Your task to perform on an android device: change the clock display to show seconds Image 0: 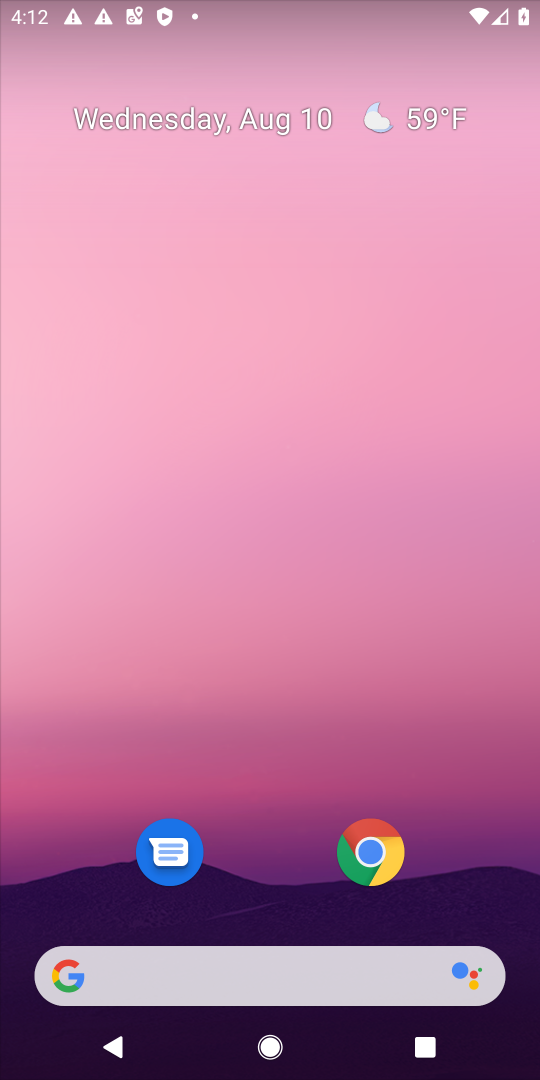
Step 0: drag from (289, 861) to (225, 145)
Your task to perform on an android device: change the clock display to show seconds Image 1: 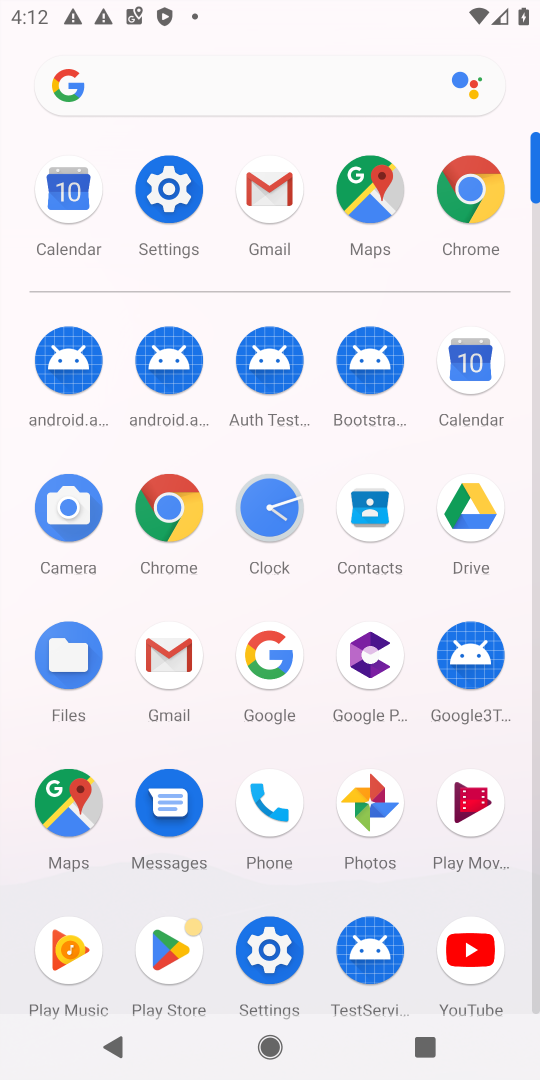
Step 1: click (252, 493)
Your task to perform on an android device: change the clock display to show seconds Image 2: 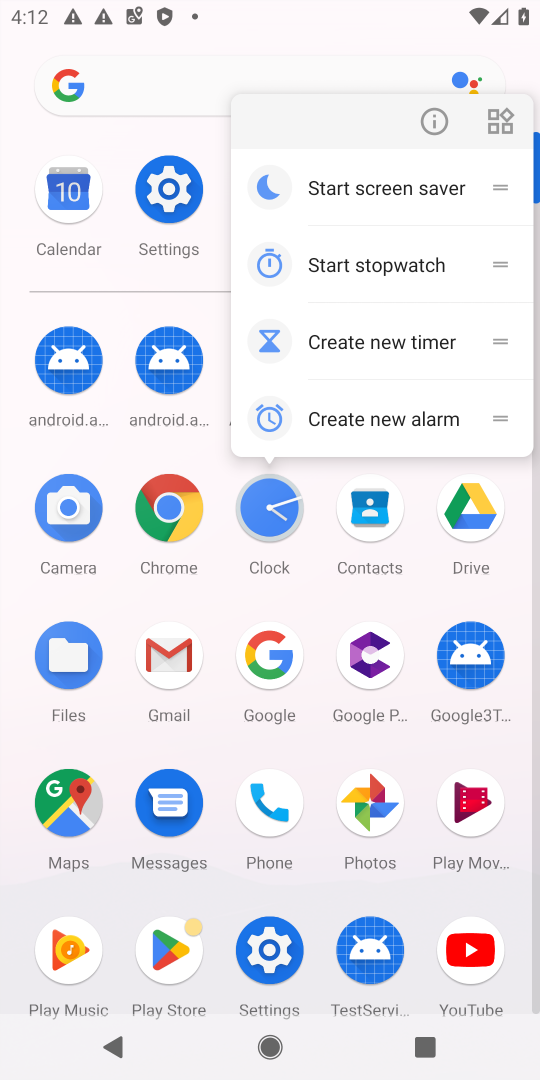
Step 2: click (267, 500)
Your task to perform on an android device: change the clock display to show seconds Image 3: 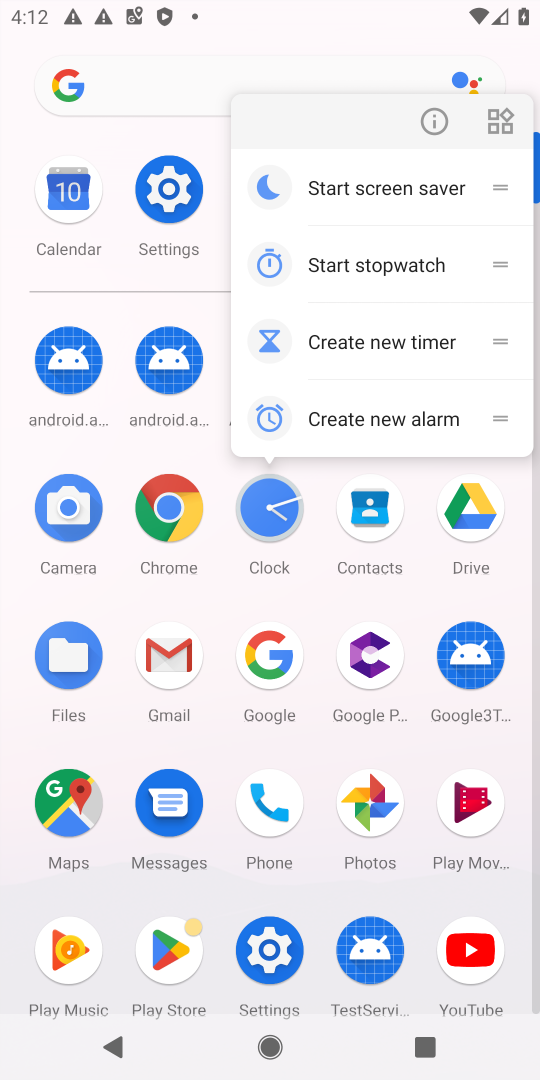
Step 3: click (267, 497)
Your task to perform on an android device: change the clock display to show seconds Image 4: 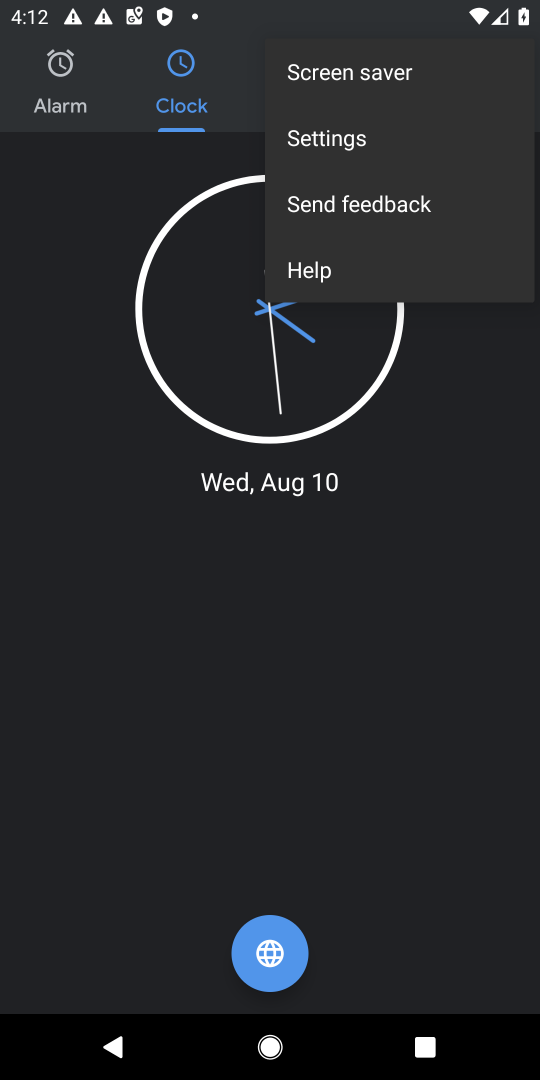
Step 4: click (44, 266)
Your task to perform on an android device: change the clock display to show seconds Image 5: 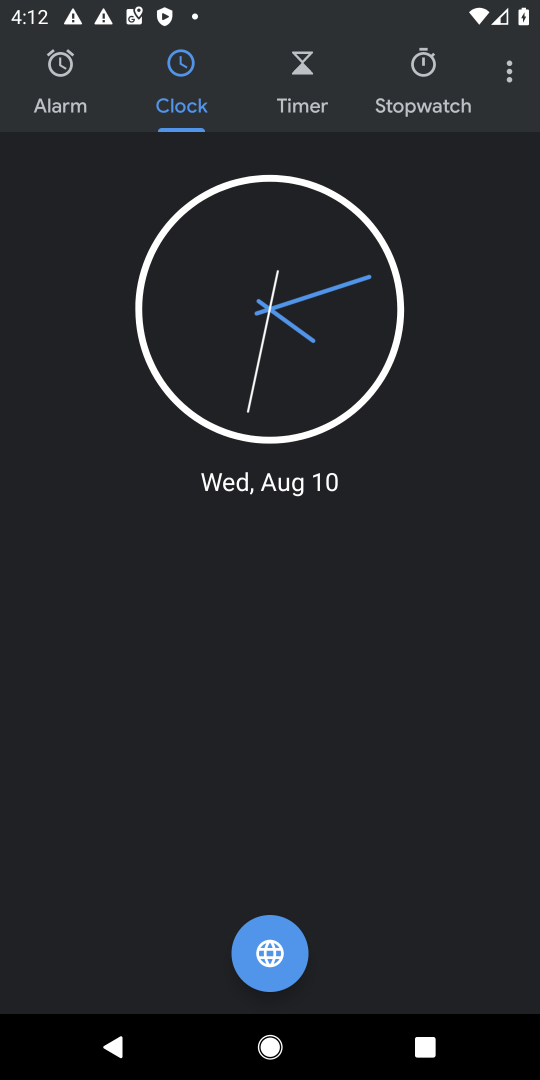
Step 5: click (514, 78)
Your task to perform on an android device: change the clock display to show seconds Image 6: 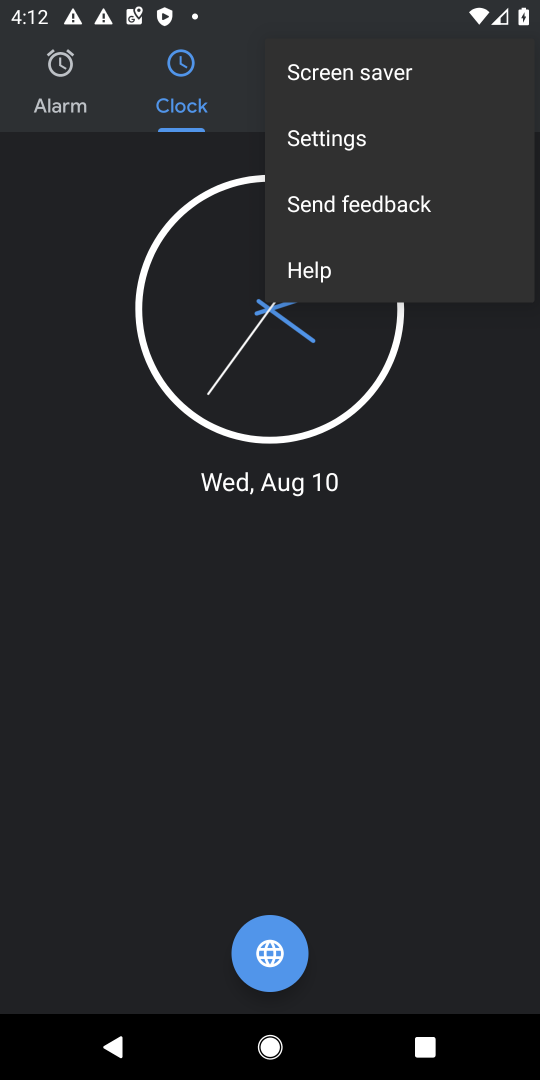
Step 6: click (341, 160)
Your task to perform on an android device: change the clock display to show seconds Image 7: 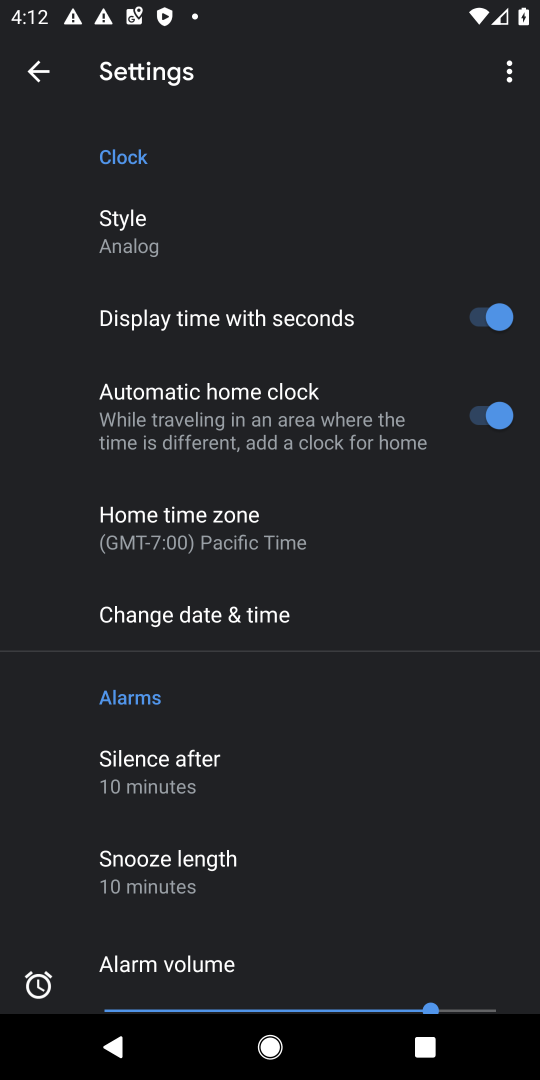
Step 7: task complete